Your task to perform on an android device: show emergency info Image 0: 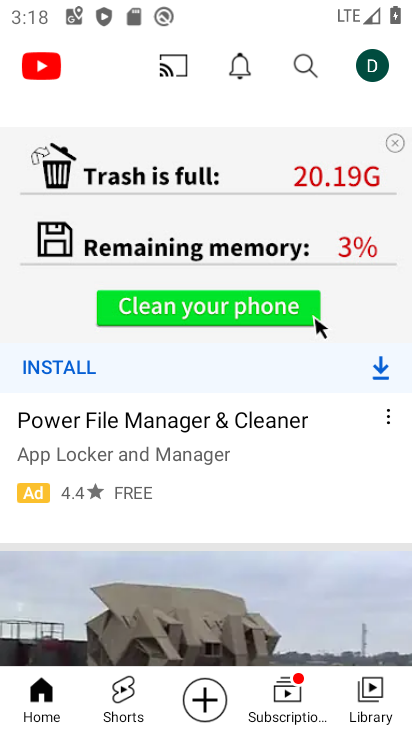
Step 0: press home button
Your task to perform on an android device: show emergency info Image 1: 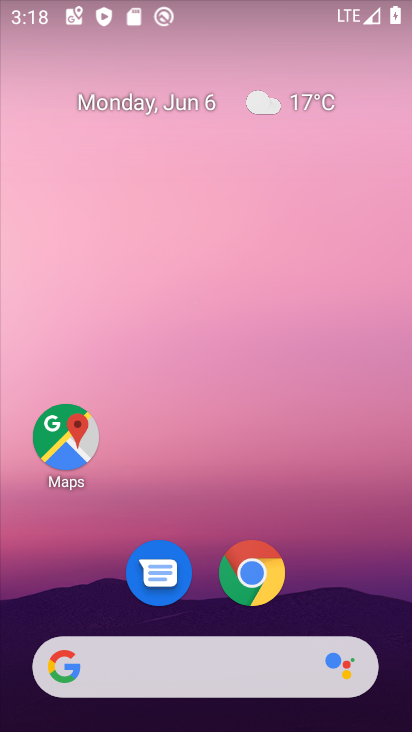
Step 1: drag from (396, 615) to (395, 215)
Your task to perform on an android device: show emergency info Image 2: 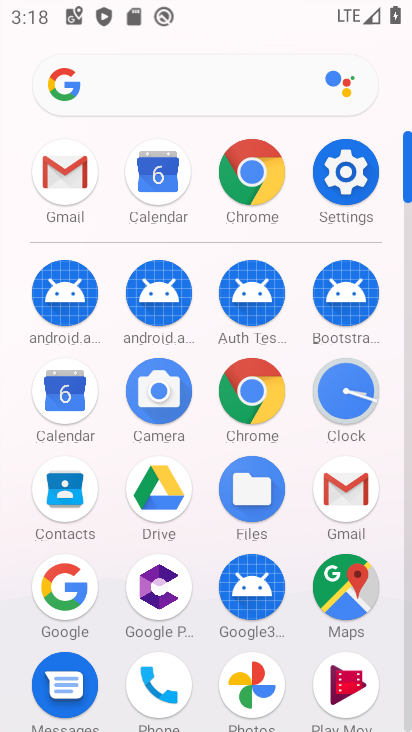
Step 2: click (352, 188)
Your task to perform on an android device: show emergency info Image 3: 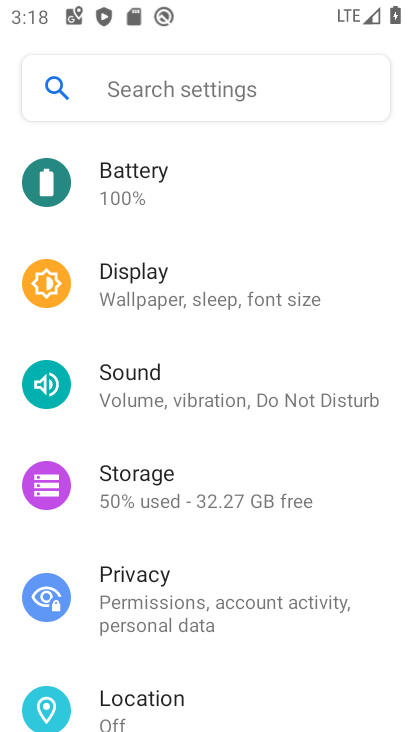
Step 3: drag from (362, 529) to (362, 468)
Your task to perform on an android device: show emergency info Image 4: 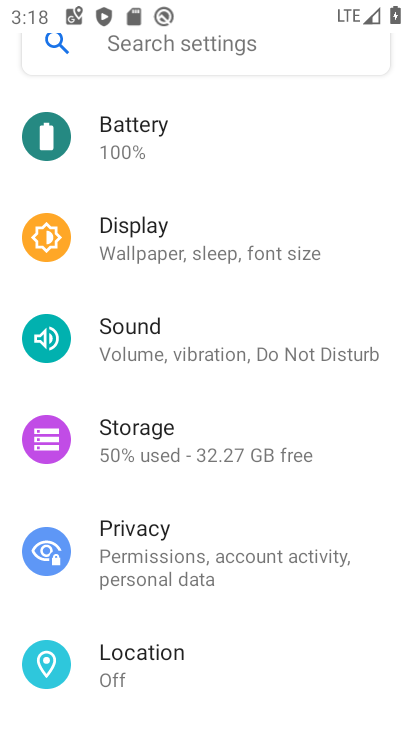
Step 4: drag from (367, 581) to (371, 513)
Your task to perform on an android device: show emergency info Image 5: 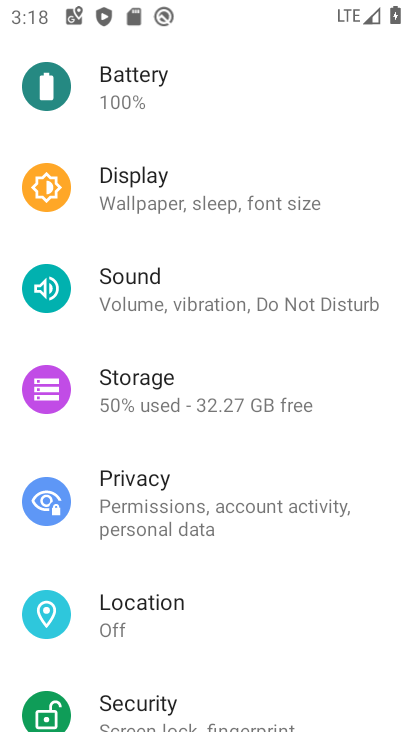
Step 5: drag from (371, 602) to (373, 521)
Your task to perform on an android device: show emergency info Image 6: 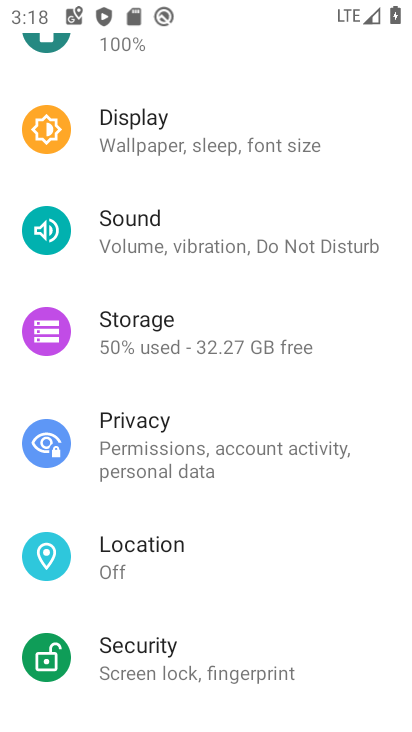
Step 6: drag from (357, 599) to (356, 499)
Your task to perform on an android device: show emergency info Image 7: 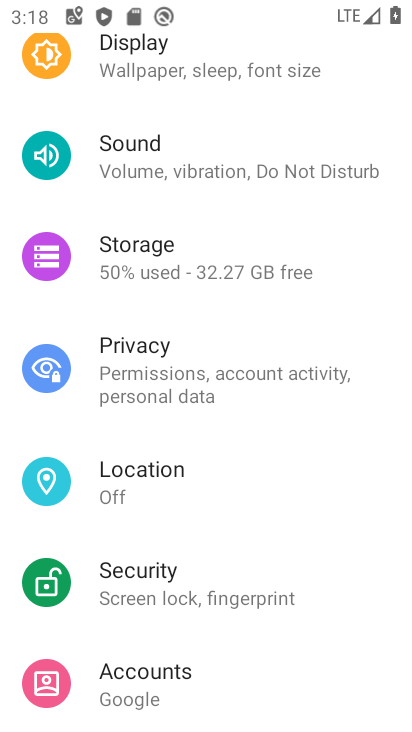
Step 7: drag from (355, 613) to (351, 516)
Your task to perform on an android device: show emergency info Image 8: 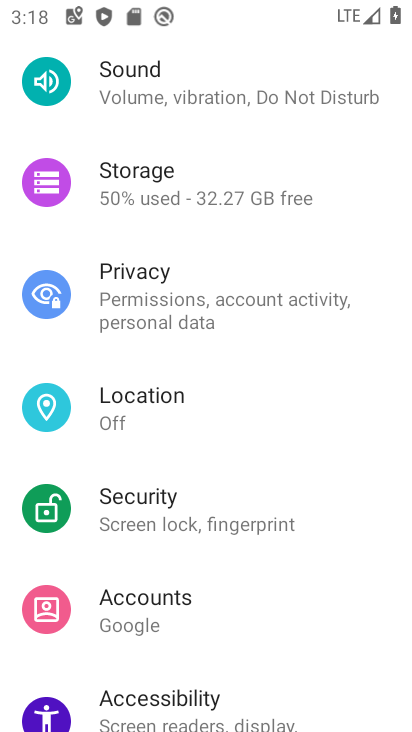
Step 8: drag from (349, 631) to (354, 540)
Your task to perform on an android device: show emergency info Image 9: 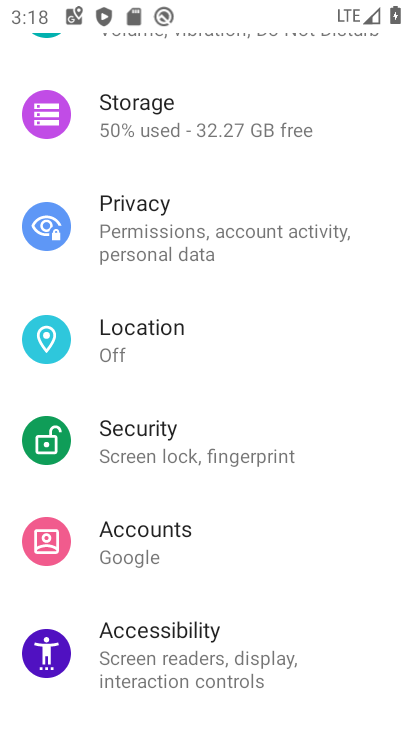
Step 9: drag from (354, 623) to (356, 529)
Your task to perform on an android device: show emergency info Image 10: 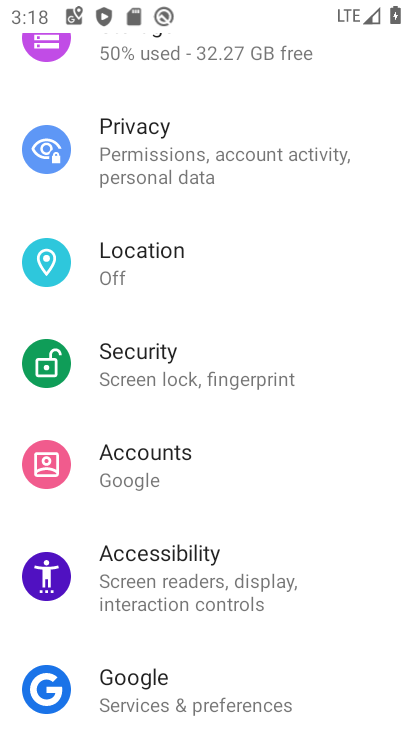
Step 10: drag from (351, 634) to (353, 507)
Your task to perform on an android device: show emergency info Image 11: 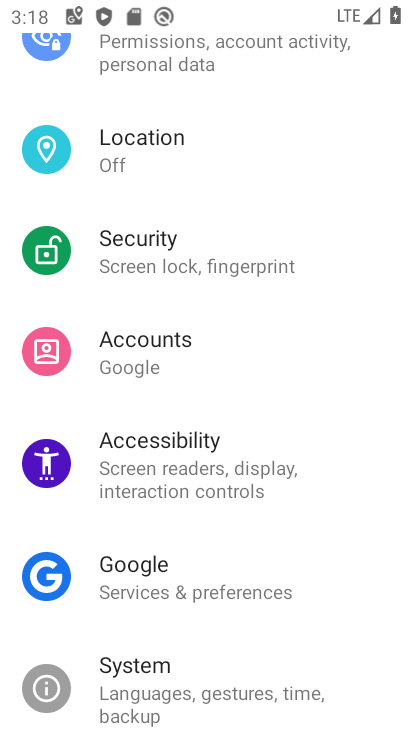
Step 11: drag from (357, 640) to (357, 540)
Your task to perform on an android device: show emergency info Image 12: 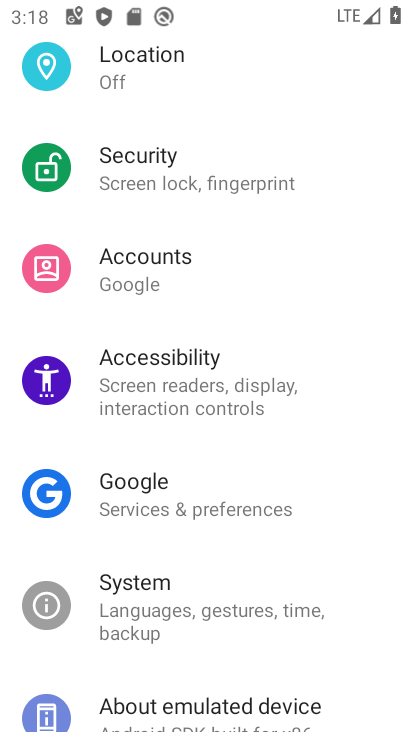
Step 12: drag from (339, 652) to (340, 527)
Your task to perform on an android device: show emergency info Image 13: 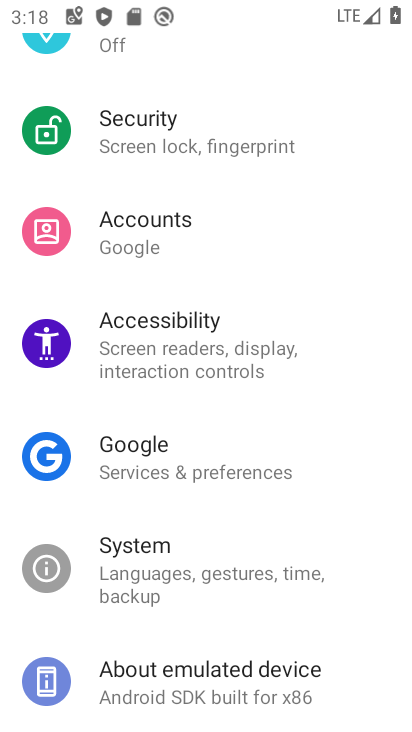
Step 13: click (286, 690)
Your task to perform on an android device: show emergency info Image 14: 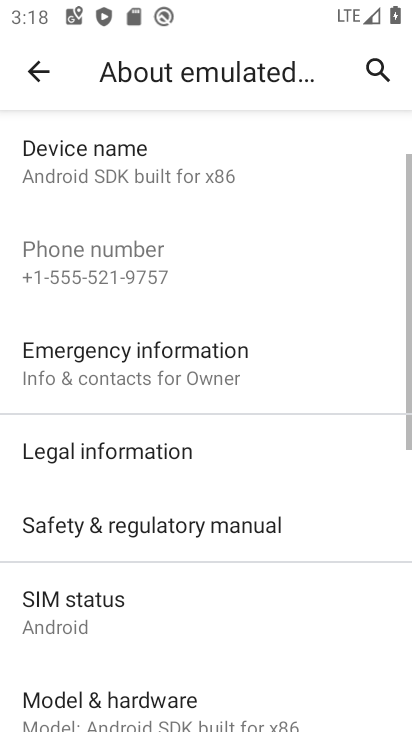
Step 14: click (193, 390)
Your task to perform on an android device: show emergency info Image 15: 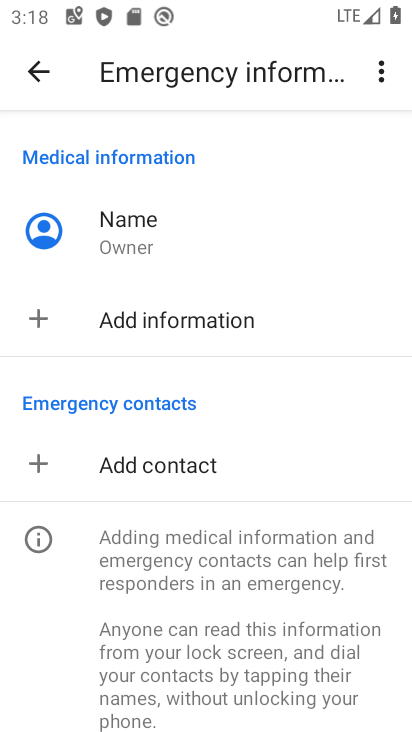
Step 15: task complete